Your task to perform on an android device: Open Android settings Image 0: 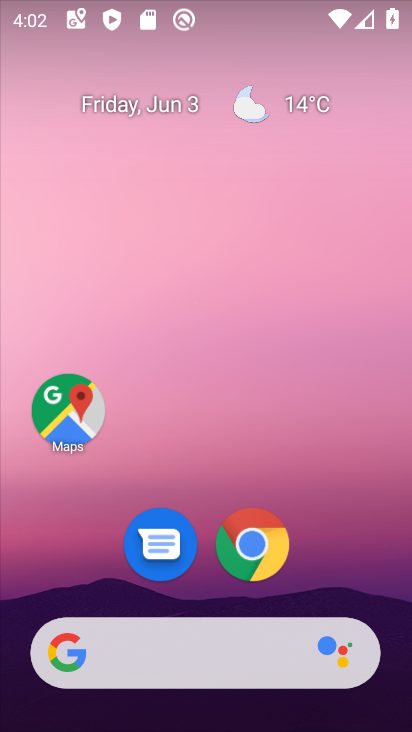
Step 0: drag from (394, 652) to (318, 113)
Your task to perform on an android device: Open Android settings Image 1: 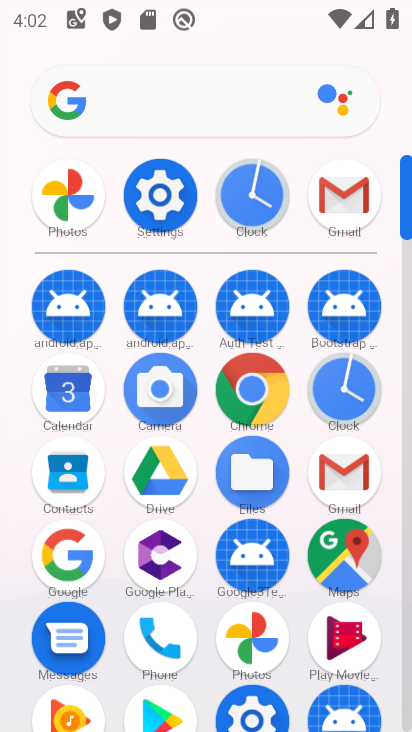
Step 1: click (407, 697)
Your task to perform on an android device: Open Android settings Image 2: 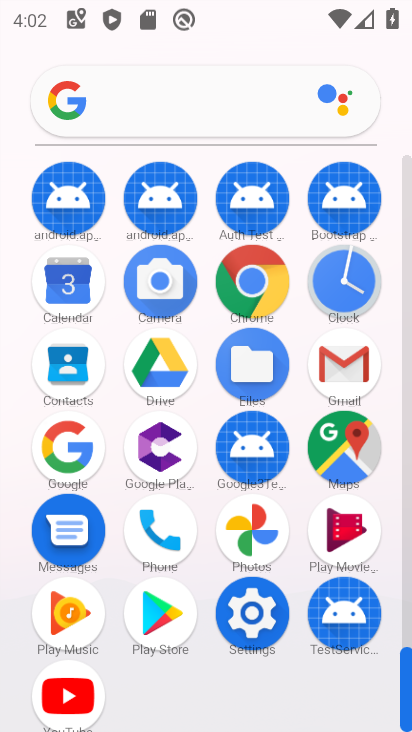
Step 2: click (250, 612)
Your task to perform on an android device: Open Android settings Image 3: 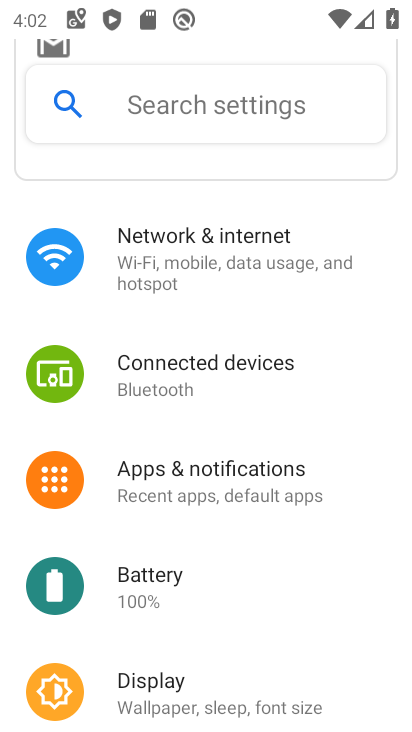
Step 3: drag from (354, 573) to (323, 162)
Your task to perform on an android device: Open Android settings Image 4: 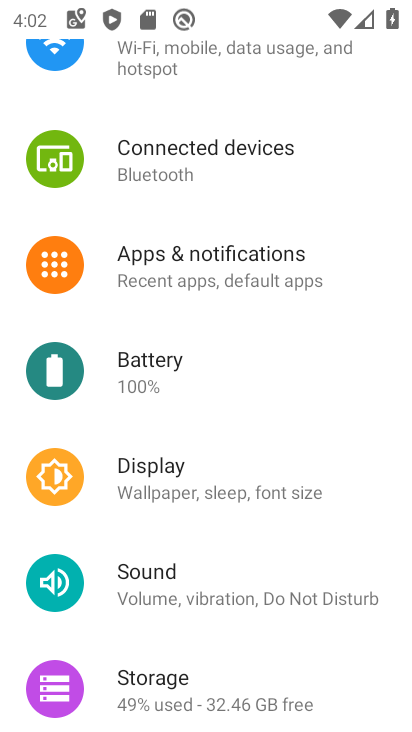
Step 4: drag from (357, 605) to (300, 168)
Your task to perform on an android device: Open Android settings Image 5: 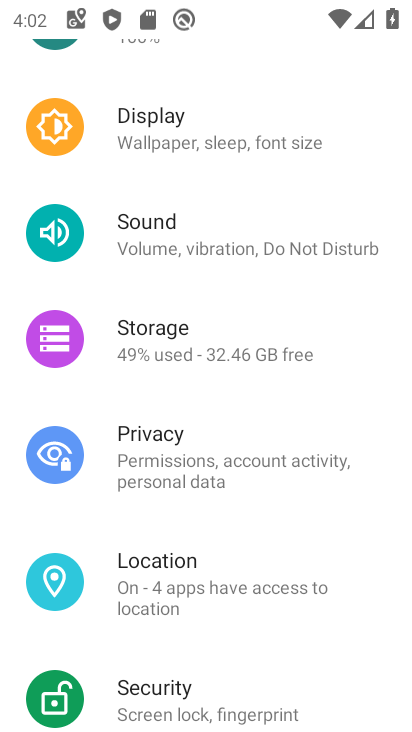
Step 5: drag from (337, 683) to (364, 250)
Your task to perform on an android device: Open Android settings Image 6: 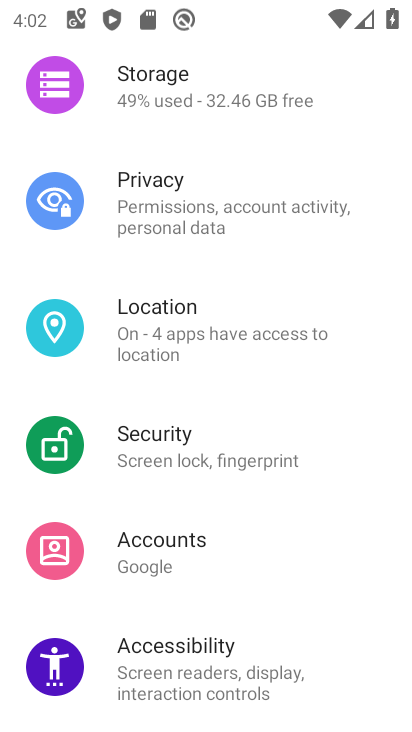
Step 6: drag from (329, 692) to (291, 157)
Your task to perform on an android device: Open Android settings Image 7: 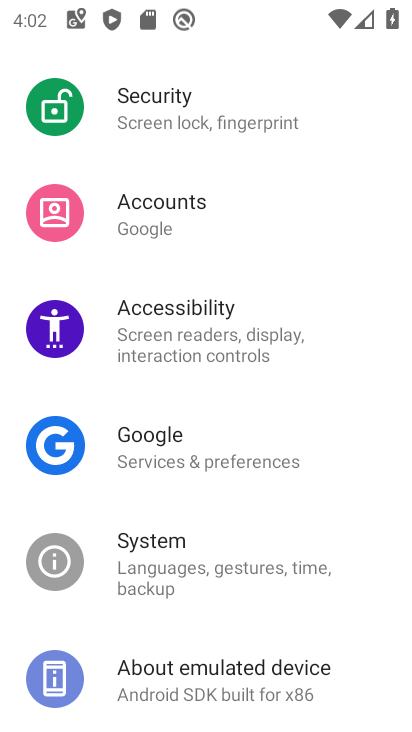
Step 7: click (179, 681)
Your task to perform on an android device: Open Android settings Image 8: 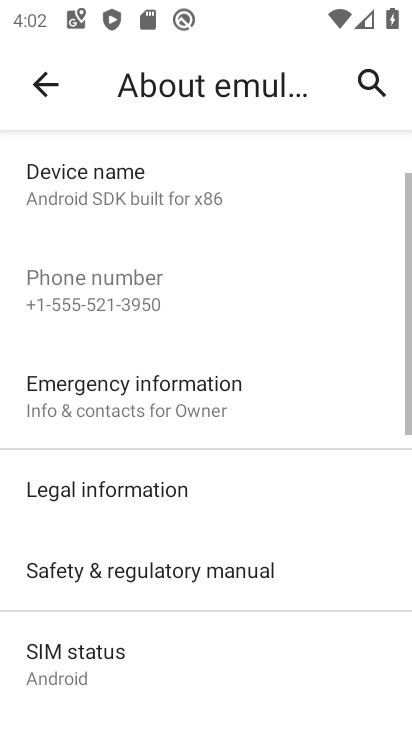
Step 8: task complete